Your task to perform on an android device: Open Amazon Image 0: 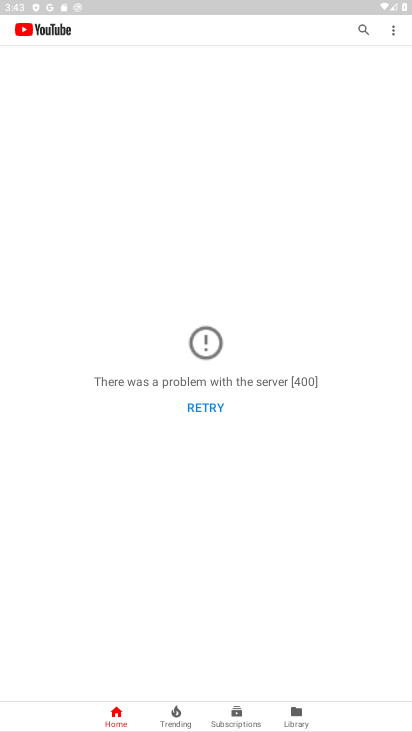
Step 0: press home button
Your task to perform on an android device: Open Amazon Image 1: 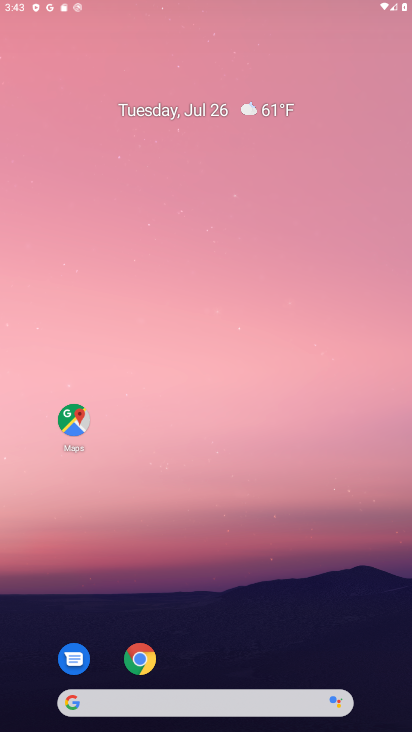
Step 1: drag from (223, 495) to (163, 52)
Your task to perform on an android device: Open Amazon Image 2: 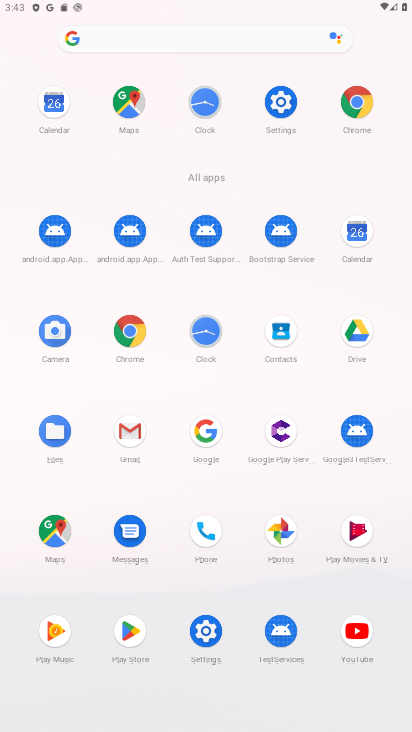
Step 2: click (361, 95)
Your task to perform on an android device: Open Amazon Image 3: 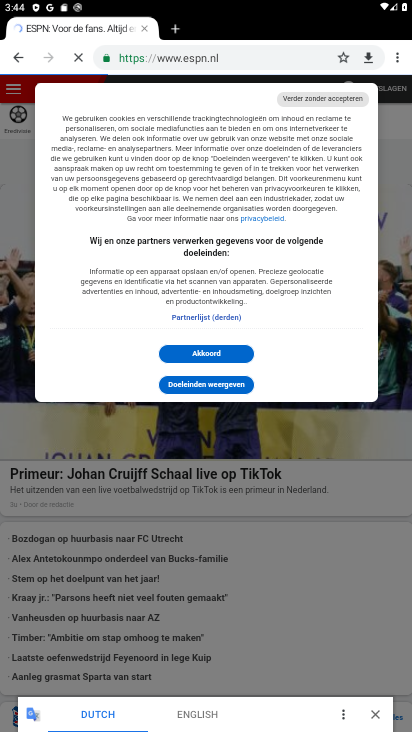
Step 3: click (221, 57)
Your task to perform on an android device: Open Amazon Image 4: 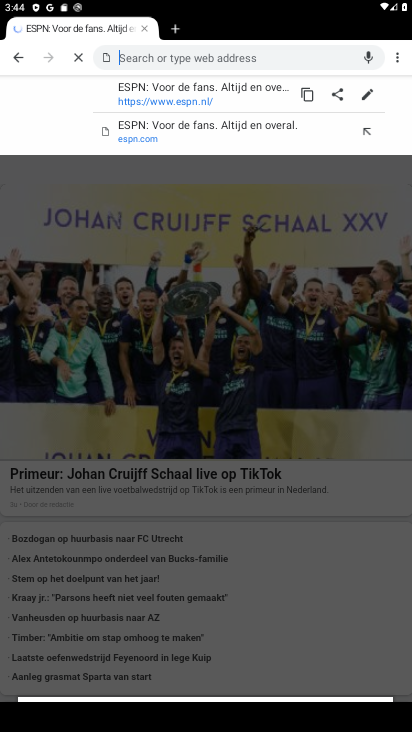
Step 4: type "amazon"
Your task to perform on an android device: Open Amazon Image 5: 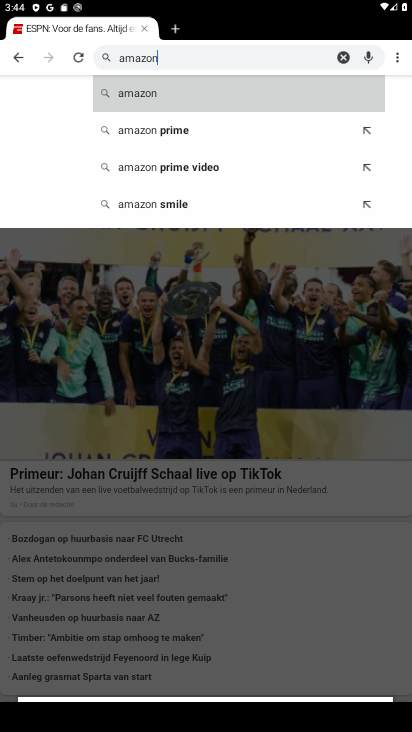
Step 5: click (162, 92)
Your task to perform on an android device: Open Amazon Image 6: 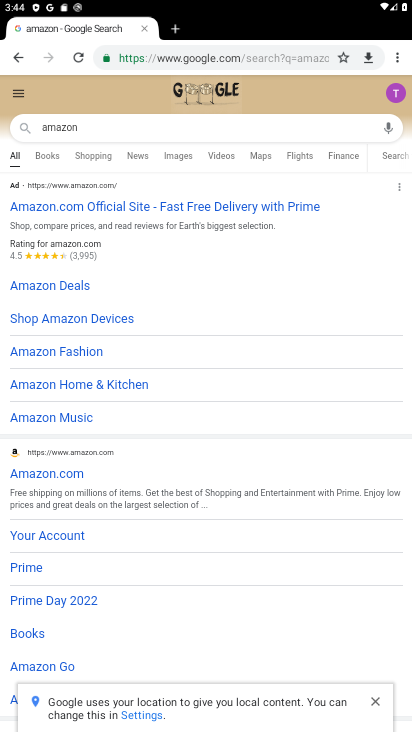
Step 6: click (46, 473)
Your task to perform on an android device: Open Amazon Image 7: 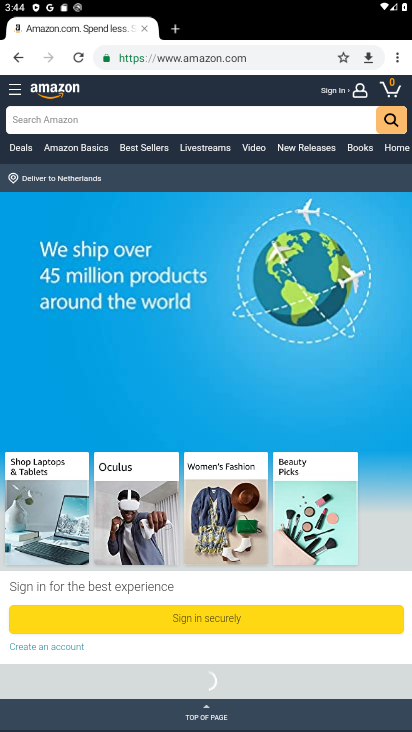
Step 7: task complete